Your task to perform on an android device: Go to calendar. Show me events next week Image 0: 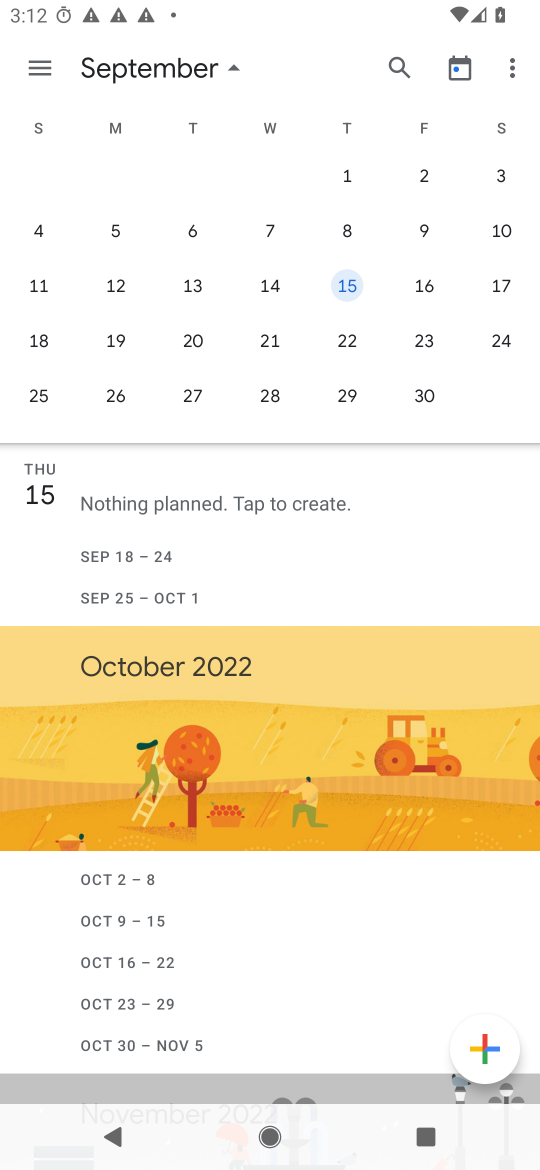
Step 0: drag from (45, 365) to (450, 403)
Your task to perform on an android device: Go to calendar. Show me events next week Image 1: 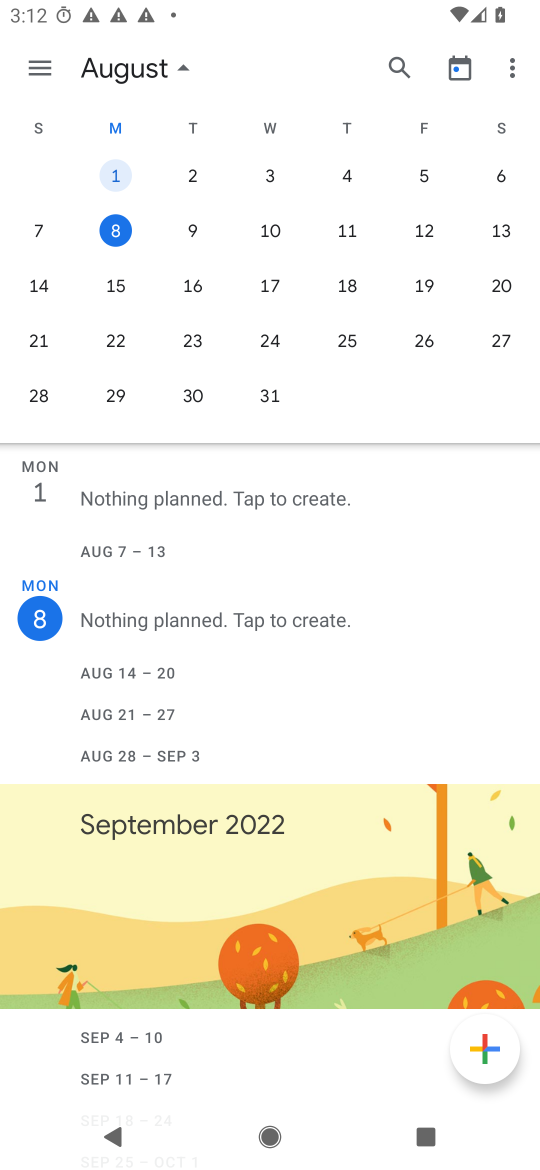
Step 1: click (198, 283)
Your task to perform on an android device: Go to calendar. Show me events next week Image 2: 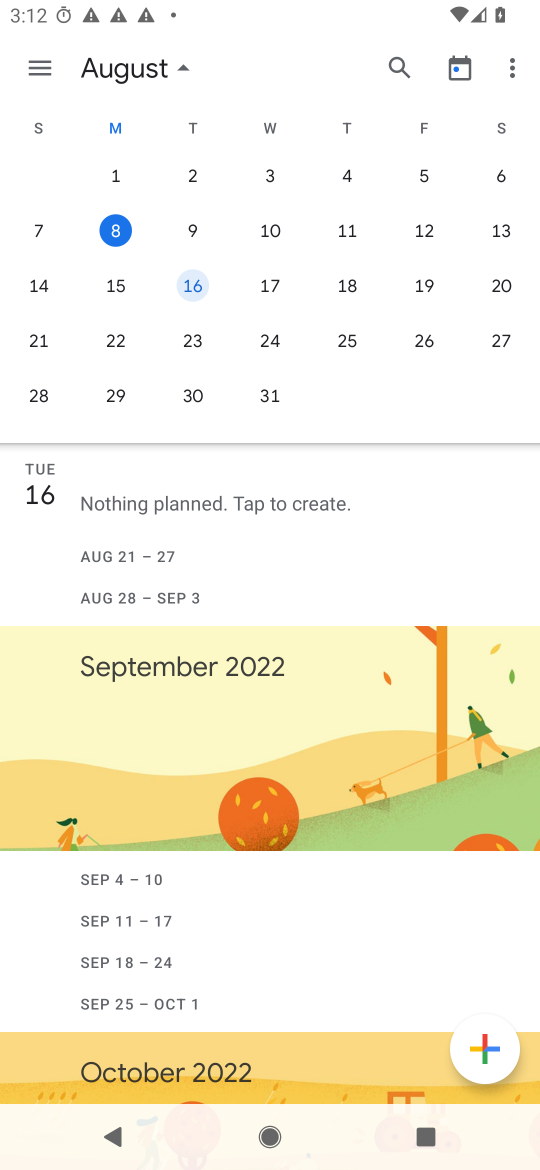
Step 2: task complete